Your task to perform on an android device: change timer sound Image 0: 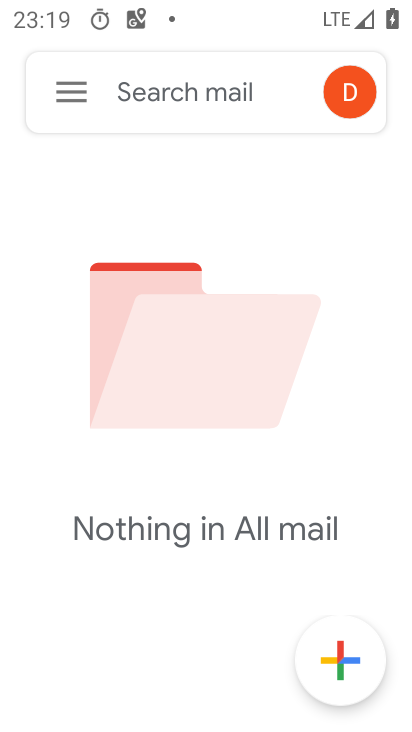
Step 0: press home button
Your task to perform on an android device: change timer sound Image 1: 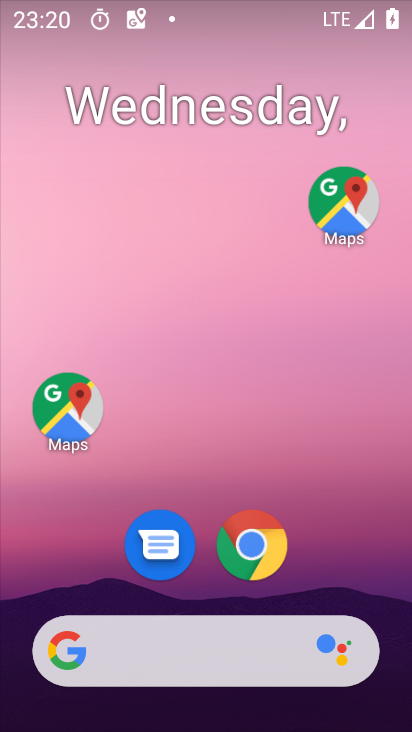
Step 1: drag from (341, 560) to (316, 26)
Your task to perform on an android device: change timer sound Image 2: 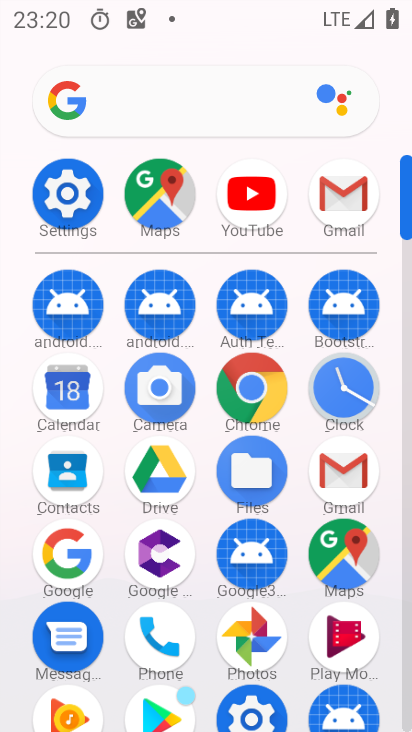
Step 2: click (340, 379)
Your task to perform on an android device: change timer sound Image 3: 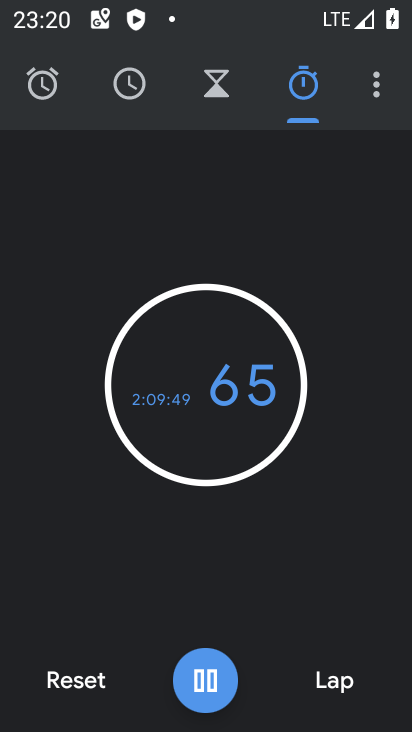
Step 3: click (368, 85)
Your task to perform on an android device: change timer sound Image 4: 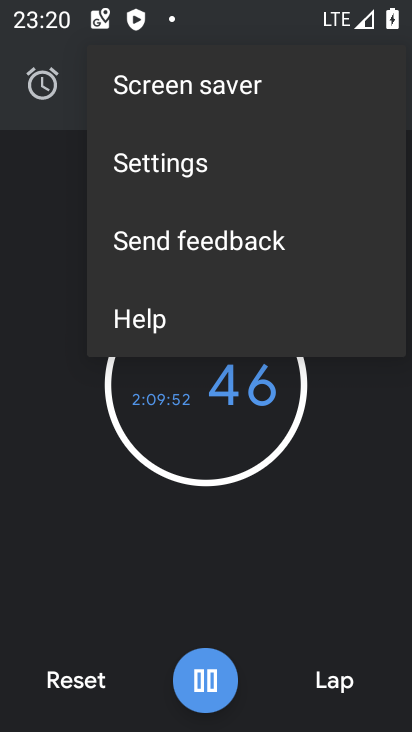
Step 4: click (163, 166)
Your task to perform on an android device: change timer sound Image 5: 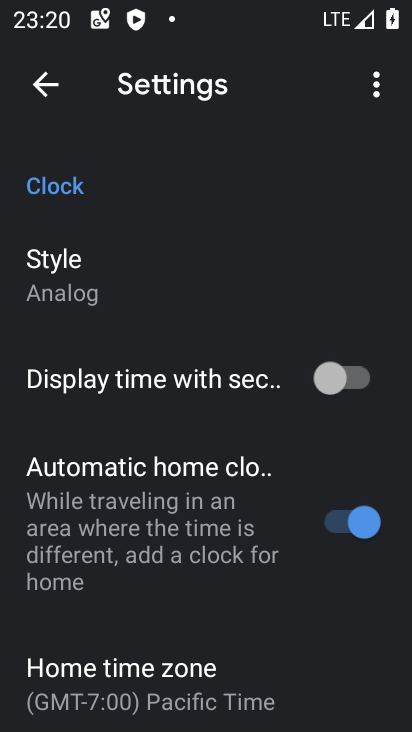
Step 5: drag from (101, 646) to (147, 367)
Your task to perform on an android device: change timer sound Image 6: 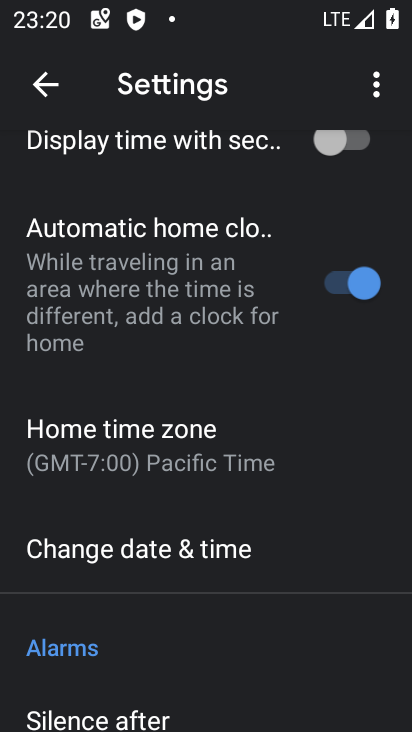
Step 6: drag from (167, 612) to (204, 216)
Your task to perform on an android device: change timer sound Image 7: 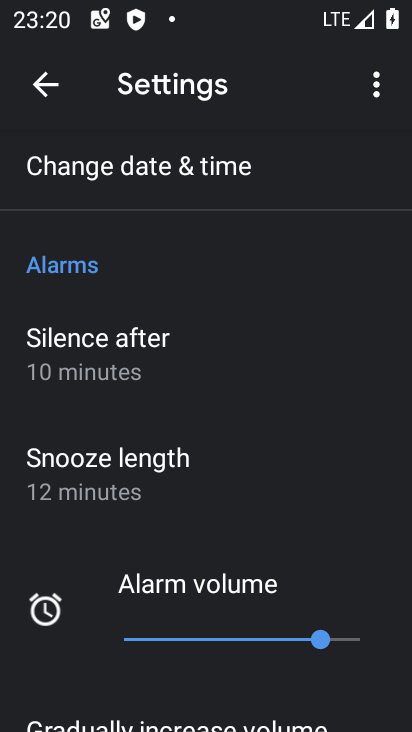
Step 7: drag from (205, 521) to (223, 234)
Your task to perform on an android device: change timer sound Image 8: 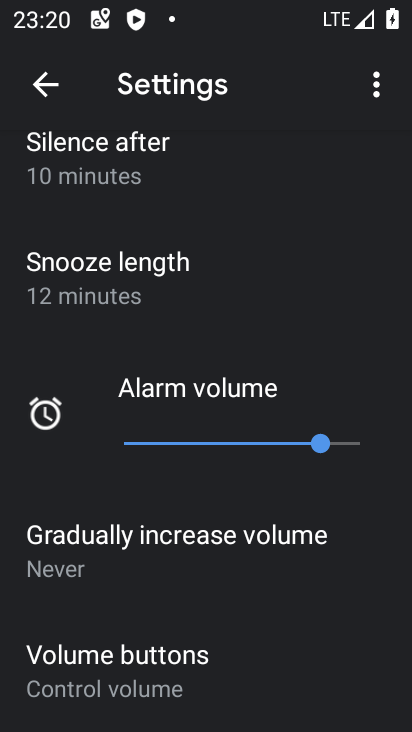
Step 8: drag from (198, 631) to (246, 229)
Your task to perform on an android device: change timer sound Image 9: 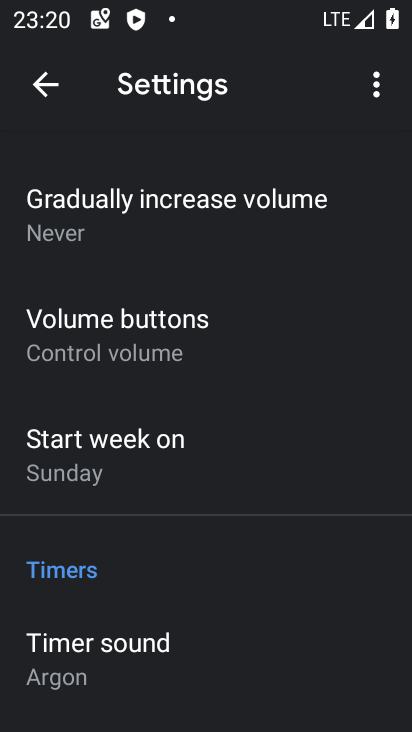
Step 9: click (213, 692)
Your task to perform on an android device: change timer sound Image 10: 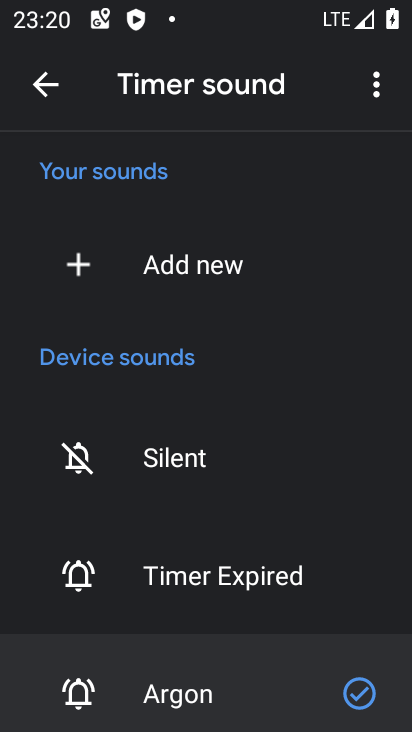
Step 10: click (268, 608)
Your task to perform on an android device: change timer sound Image 11: 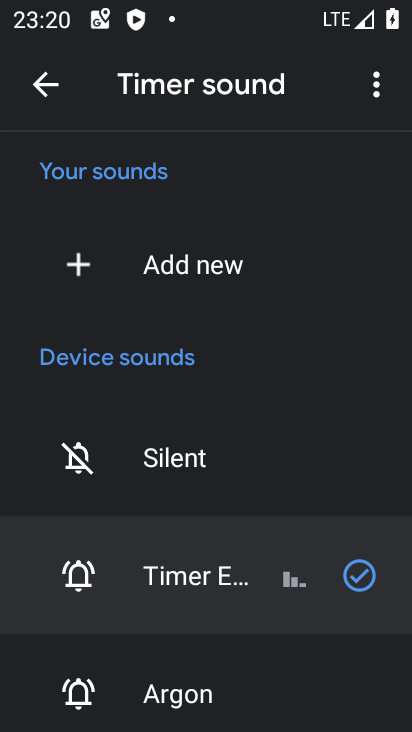
Step 11: task complete